Your task to perform on an android device: Go to eBay Image 0: 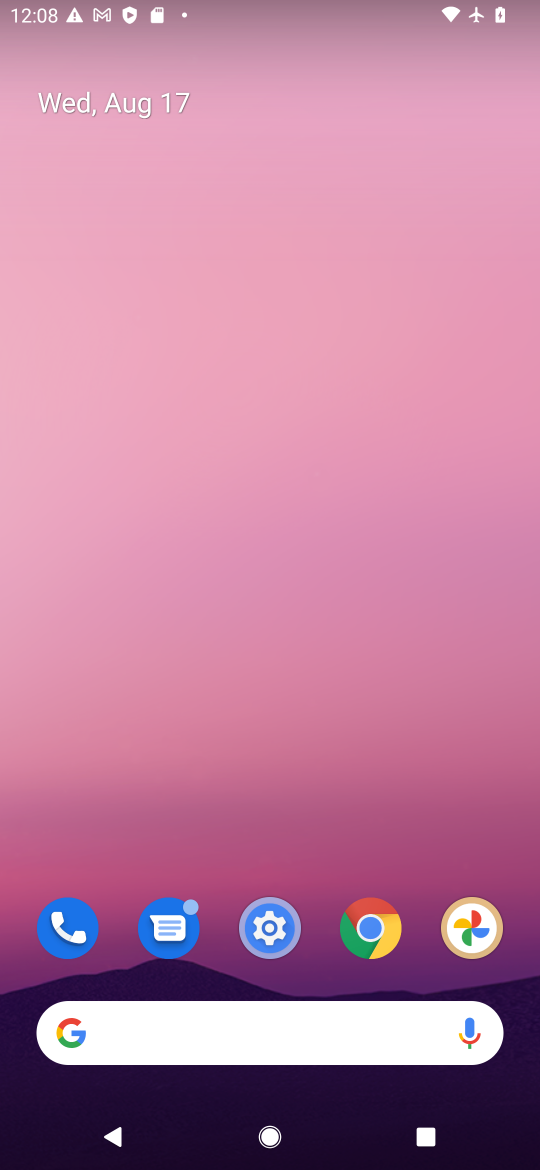
Step 0: click (364, 922)
Your task to perform on an android device: Go to eBay Image 1: 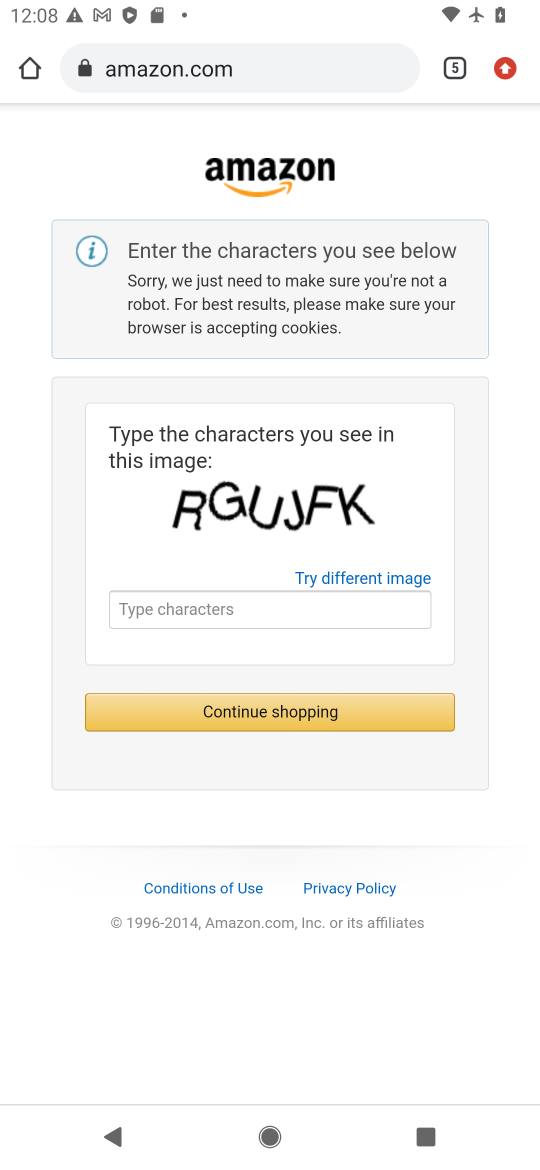
Step 1: click (463, 68)
Your task to perform on an android device: Go to eBay Image 2: 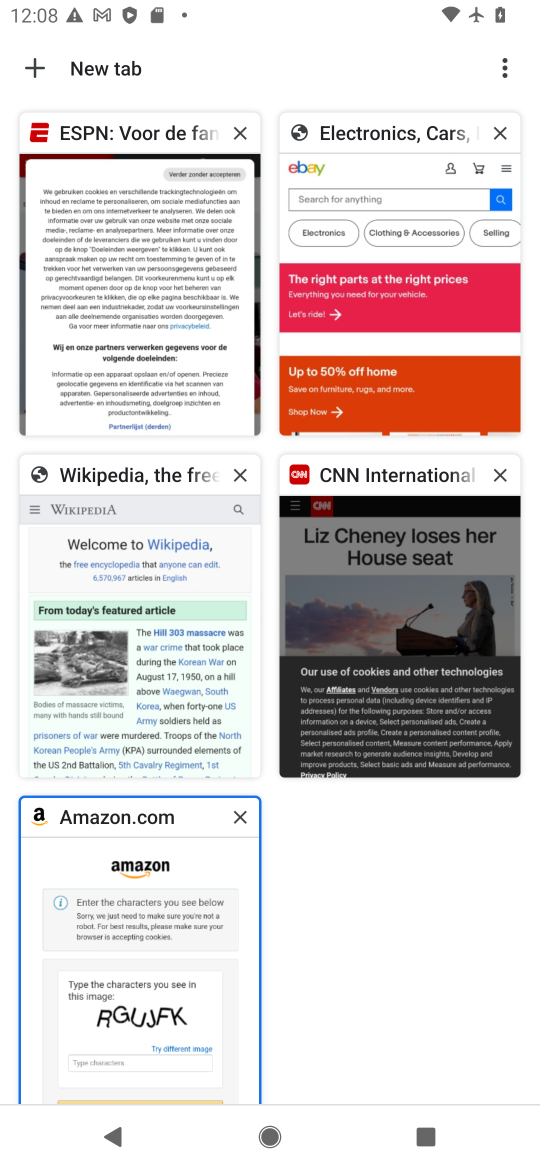
Step 2: click (38, 58)
Your task to perform on an android device: Go to eBay Image 3: 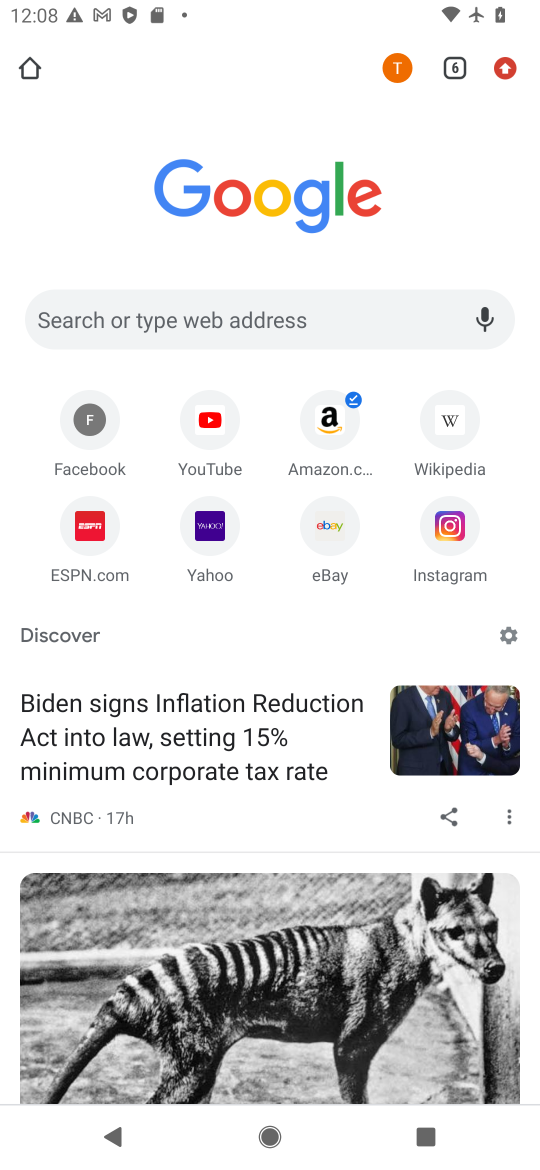
Step 3: click (312, 534)
Your task to perform on an android device: Go to eBay Image 4: 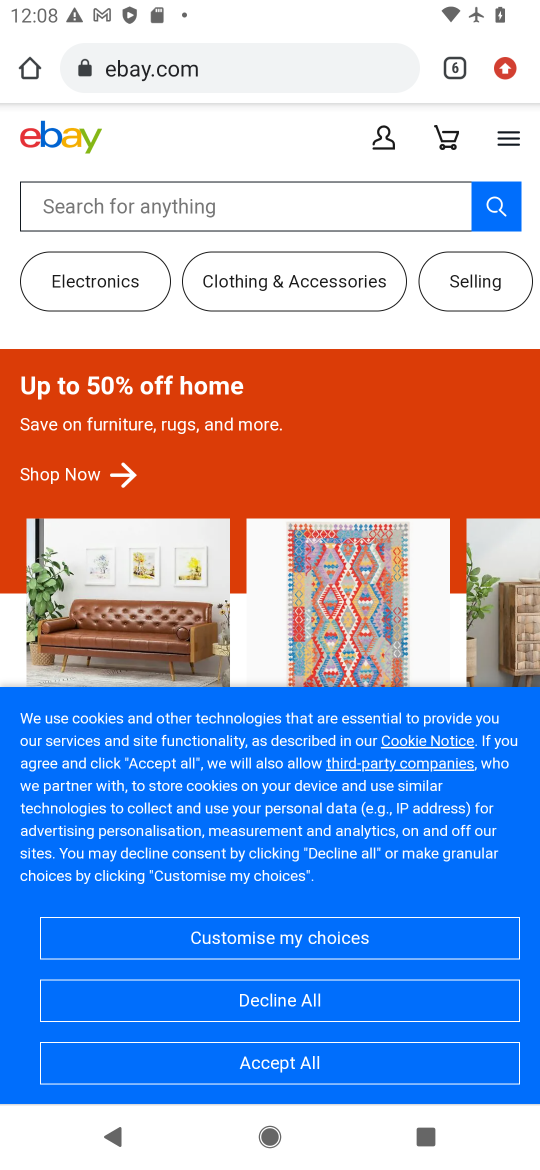
Step 4: task complete